Your task to perform on an android device: Check the news Image 0: 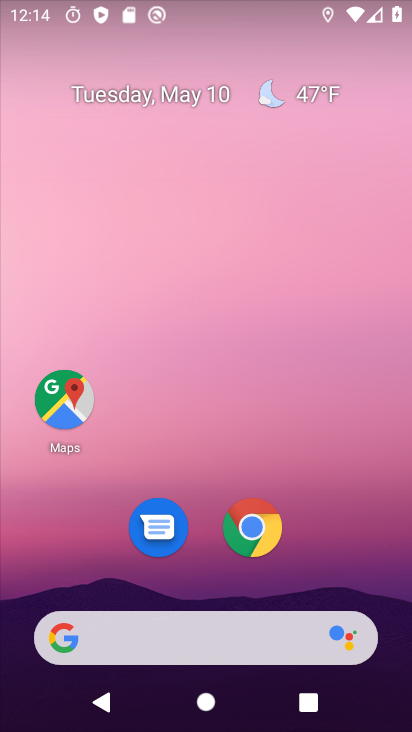
Step 0: press home button
Your task to perform on an android device: Check the news Image 1: 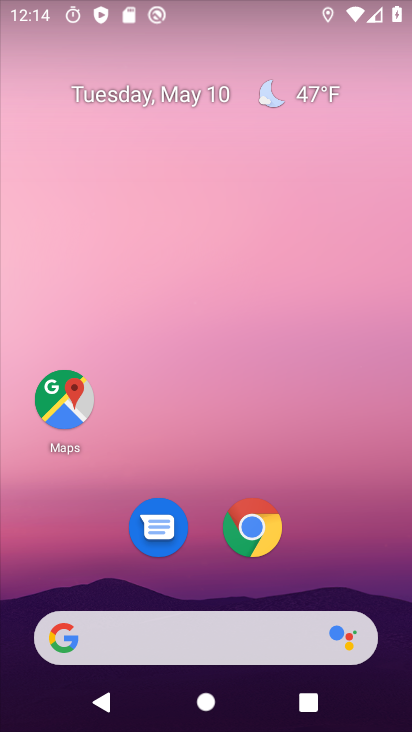
Step 1: drag from (349, 562) to (325, 226)
Your task to perform on an android device: Check the news Image 2: 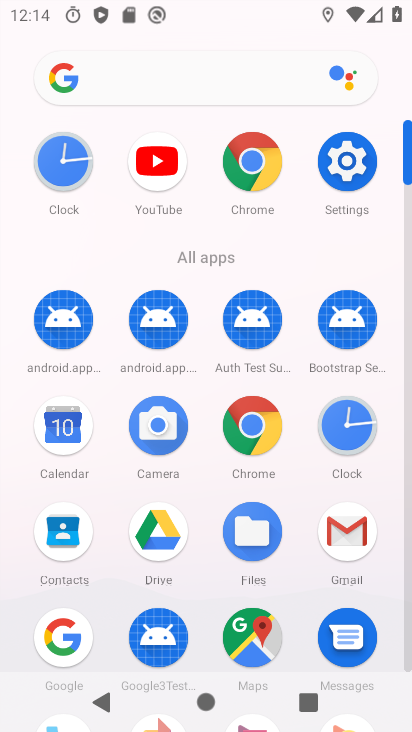
Step 2: click (267, 433)
Your task to perform on an android device: Check the news Image 3: 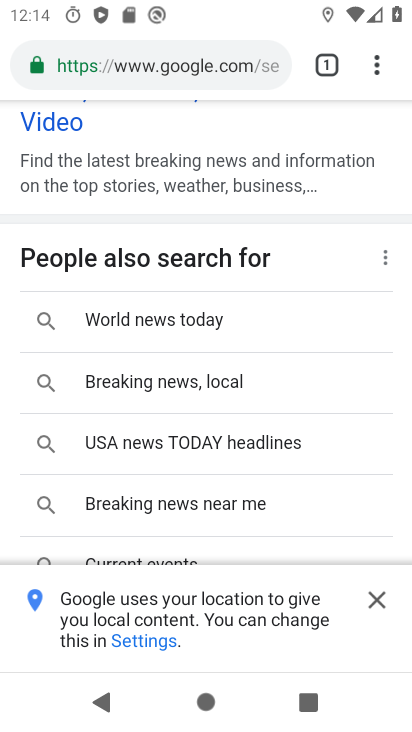
Step 3: click (167, 57)
Your task to perform on an android device: Check the news Image 4: 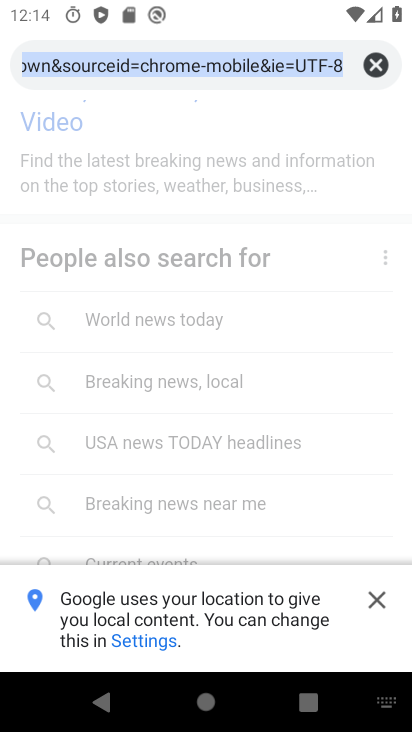
Step 4: click (378, 62)
Your task to perform on an android device: Check the news Image 5: 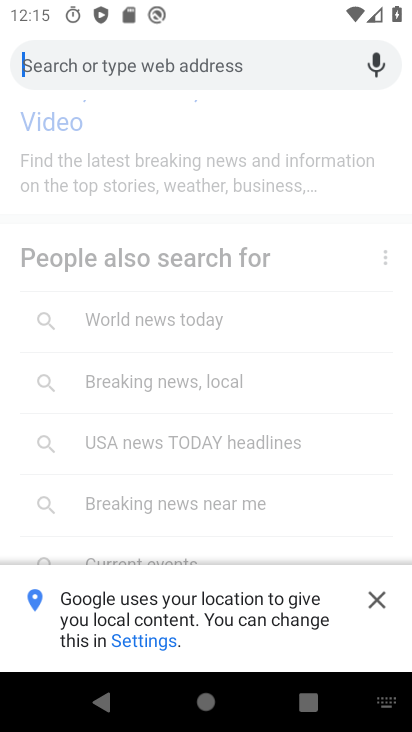
Step 5: type "check the news"
Your task to perform on an android device: Check the news Image 6: 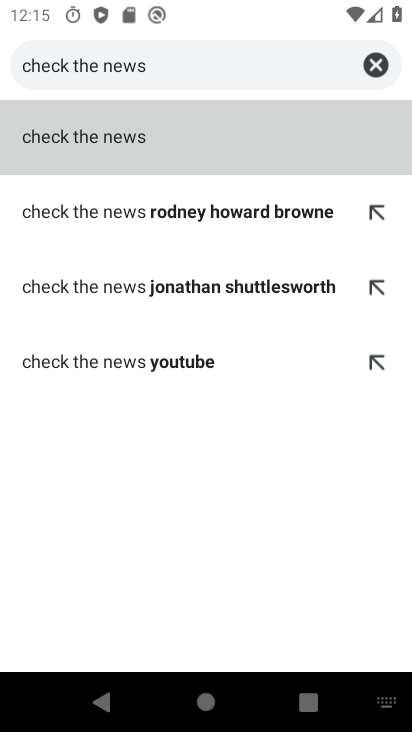
Step 6: click (143, 126)
Your task to perform on an android device: Check the news Image 7: 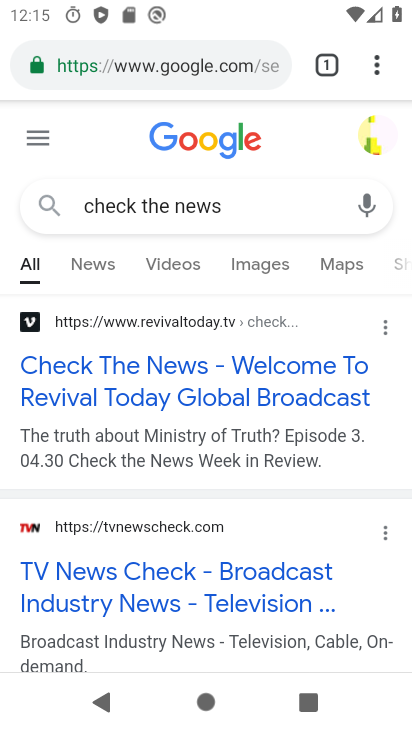
Step 7: task complete